Your task to perform on an android device: snooze an email in the gmail app Image 0: 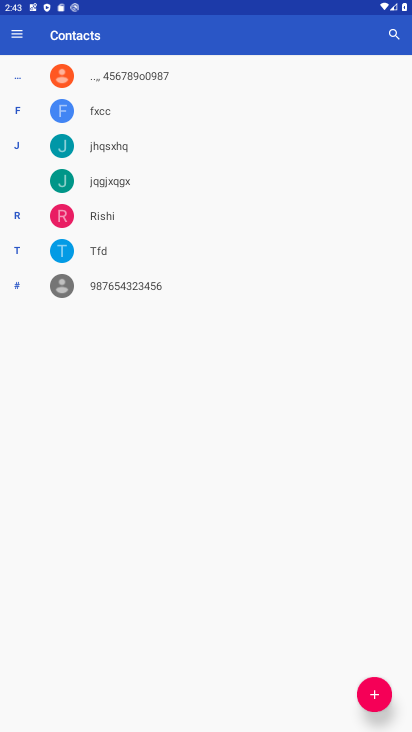
Step 0: press home button
Your task to perform on an android device: snooze an email in the gmail app Image 1: 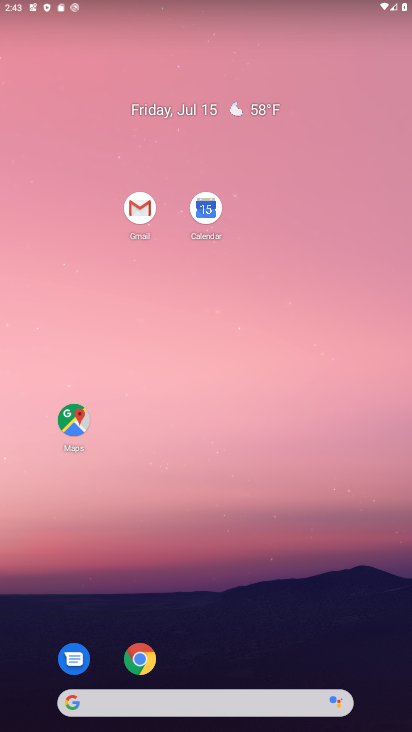
Step 1: click (152, 210)
Your task to perform on an android device: snooze an email in the gmail app Image 2: 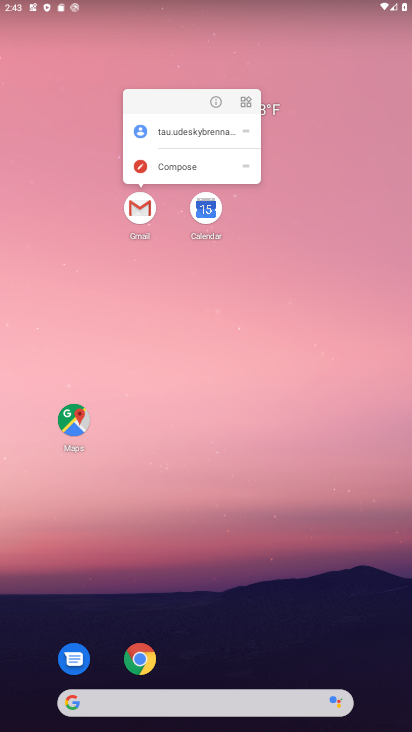
Step 2: click (154, 214)
Your task to perform on an android device: snooze an email in the gmail app Image 3: 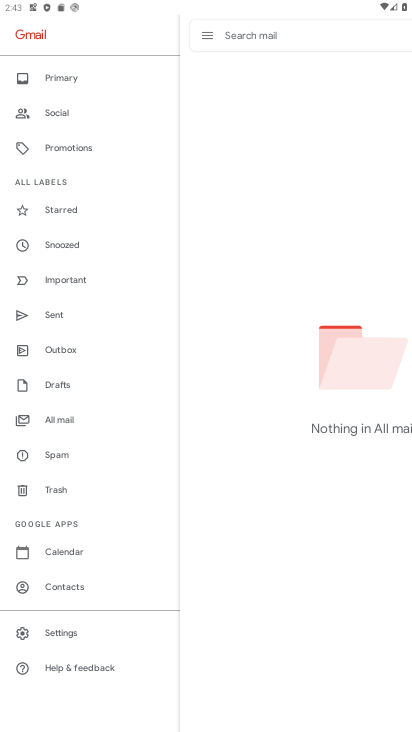
Step 3: click (94, 421)
Your task to perform on an android device: snooze an email in the gmail app Image 4: 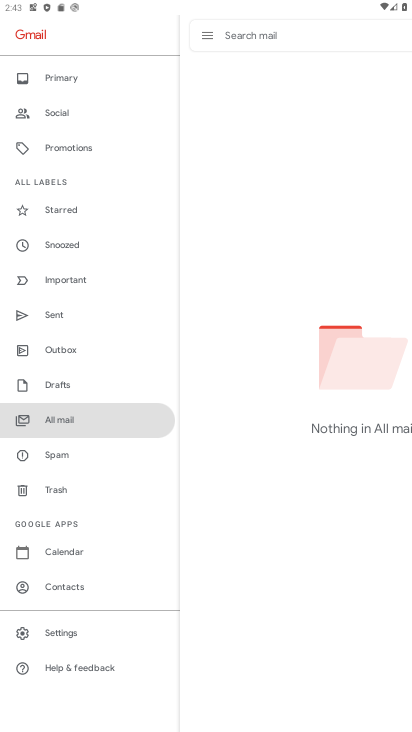
Step 4: task complete